Your task to perform on an android device: Find a good burger place on Maps Image 0: 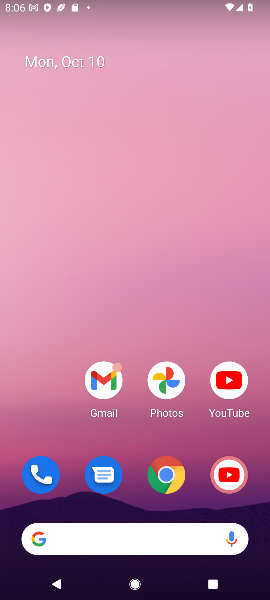
Step 0: drag from (129, 507) to (143, 138)
Your task to perform on an android device: Find a good burger place on Maps Image 1: 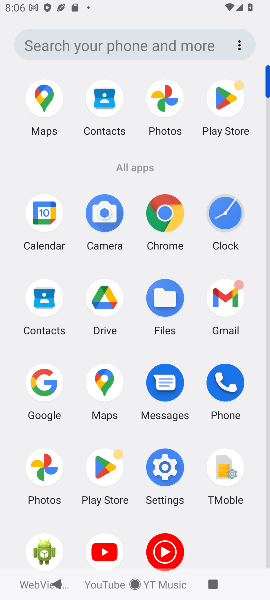
Step 1: click (111, 395)
Your task to perform on an android device: Find a good burger place on Maps Image 2: 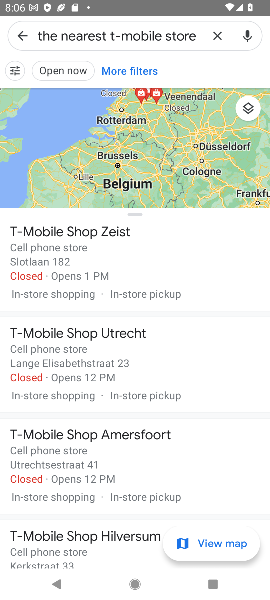
Step 2: click (152, 34)
Your task to perform on an android device: Find a good burger place on Maps Image 3: 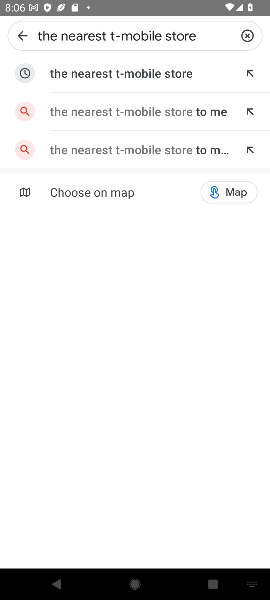
Step 3: click (247, 36)
Your task to perform on an android device: Find a good burger place on Maps Image 4: 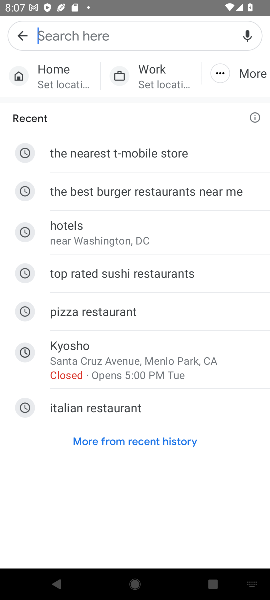
Step 4: type "good burger place"
Your task to perform on an android device: Find a good burger place on Maps Image 5: 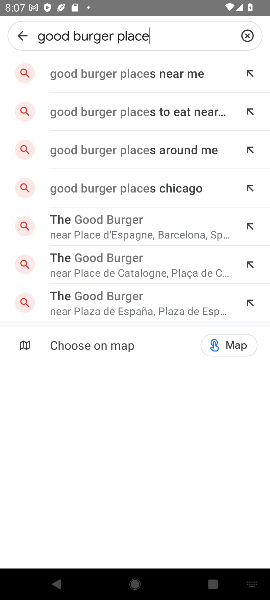
Step 5: click (150, 77)
Your task to perform on an android device: Find a good burger place on Maps Image 6: 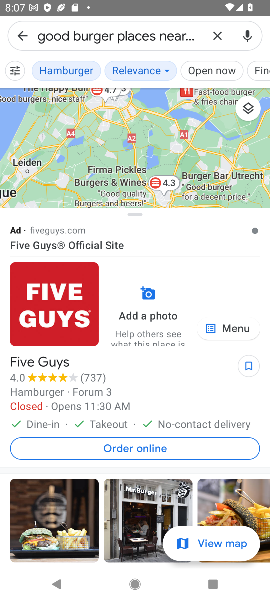
Step 6: task complete